Your task to perform on an android device: Open Wikipedia Image 0: 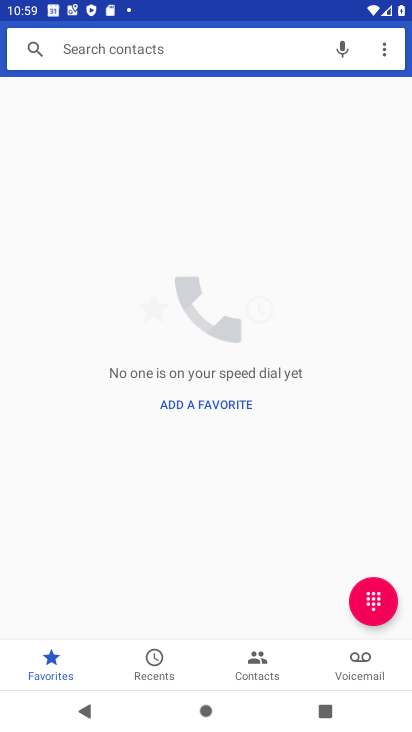
Step 0: press home button
Your task to perform on an android device: Open Wikipedia Image 1: 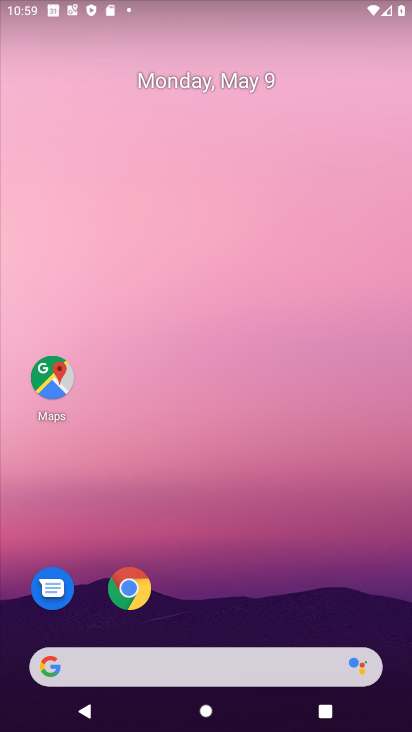
Step 1: click (137, 593)
Your task to perform on an android device: Open Wikipedia Image 2: 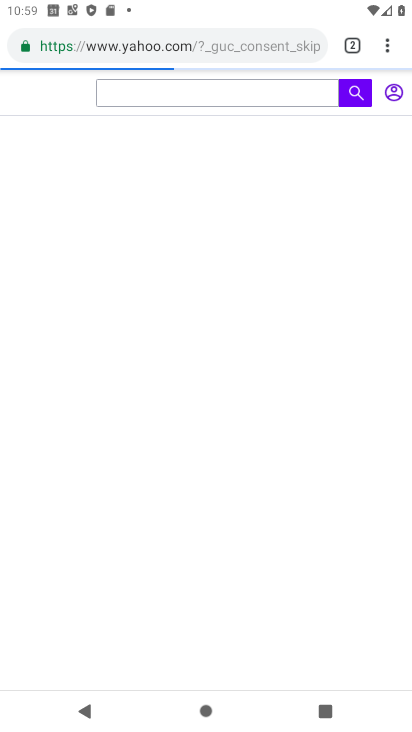
Step 2: click (339, 52)
Your task to perform on an android device: Open Wikipedia Image 3: 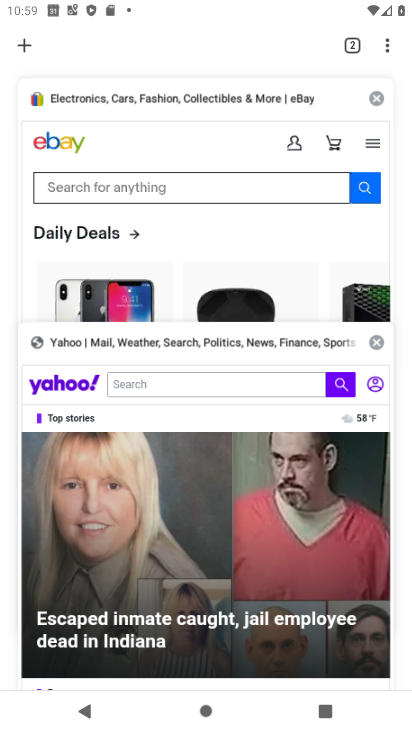
Step 3: click (345, 45)
Your task to perform on an android device: Open Wikipedia Image 4: 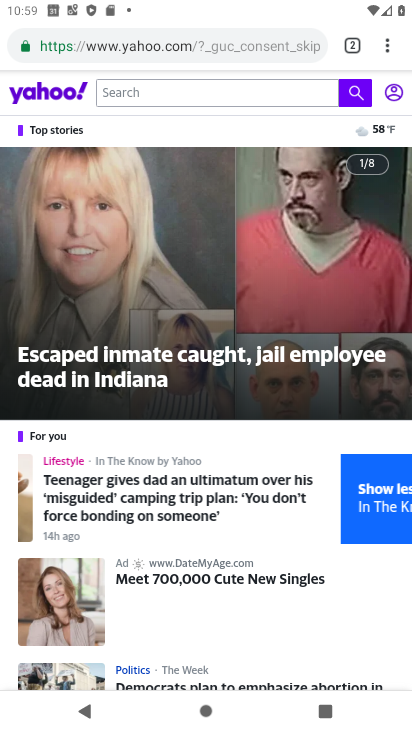
Step 4: click (345, 45)
Your task to perform on an android device: Open Wikipedia Image 5: 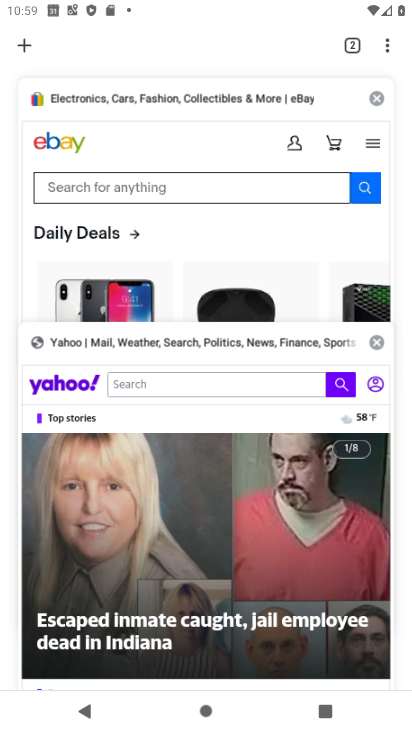
Step 5: click (13, 43)
Your task to perform on an android device: Open Wikipedia Image 6: 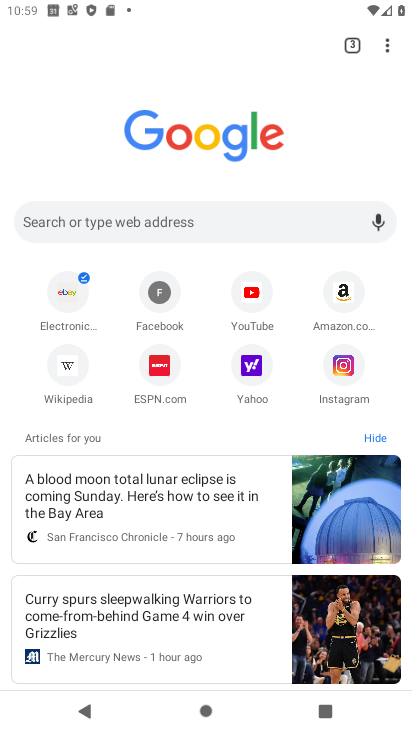
Step 6: click (141, 223)
Your task to perform on an android device: Open Wikipedia Image 7: 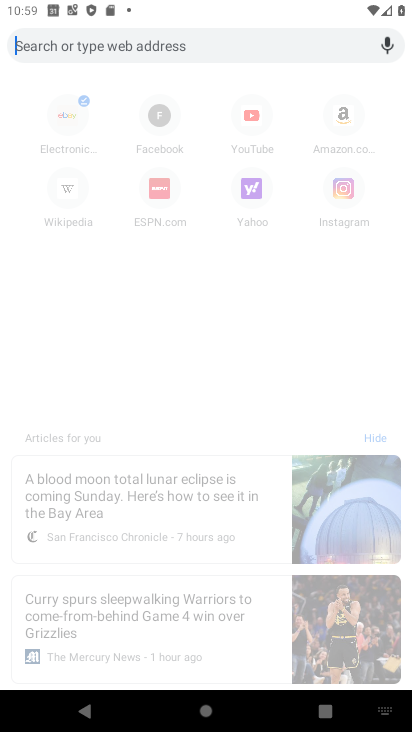
Step 7: click (62, 197)
Your task to perform on an android device: Open Wikipedia Image 8: 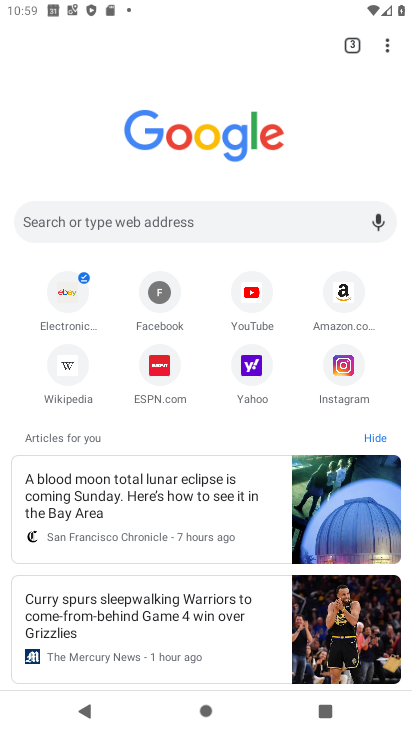
Step 8: click (55, 375)
Your task to perform on an android device: Open Wikipedia Image 9: 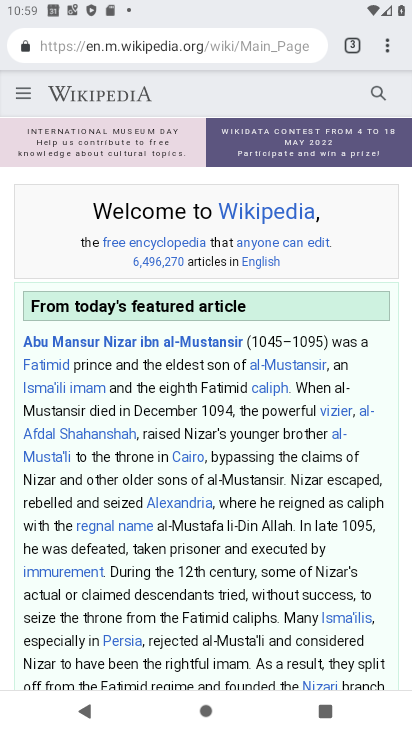
Step 9: task complete